Your task to perform on an android device: Search for vegetarian restaurants on Maps Image 0: 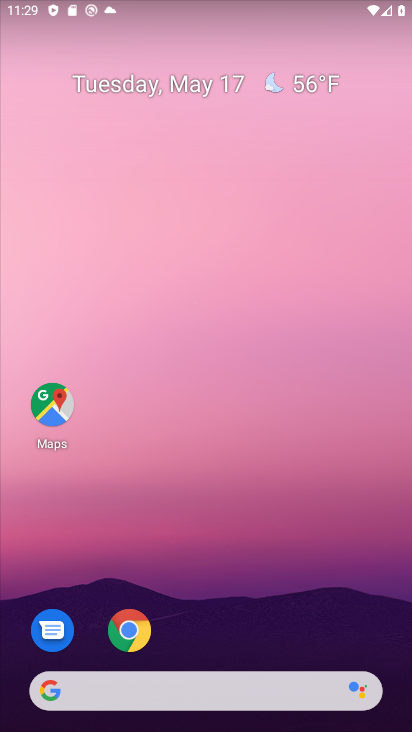
Step 0: drag from (392, 590) to (338, 192)
Your task to perform on an android device: Search for vegetarian restaurants on Maps Image 1: 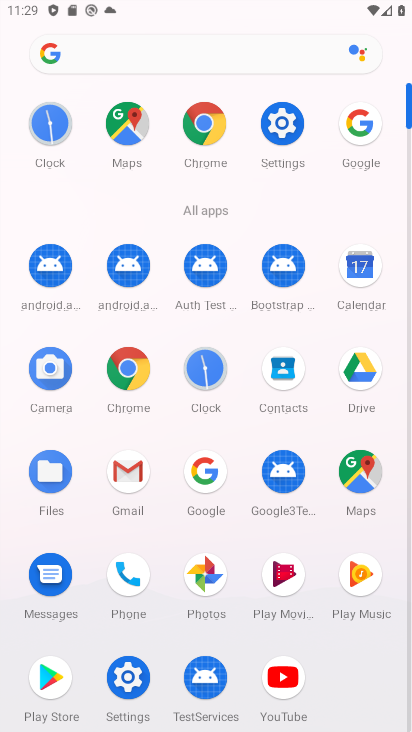
Step 1: click (357, 475)
Your task to perform on an android device: Search for vegetarian restaurants on Maps Image 2: 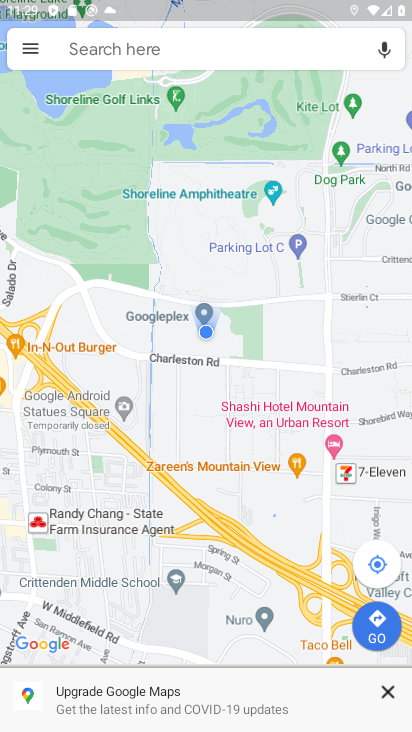
Step 2: click (194, 49)
Your task to perform on an android device: Search for vegetarian restaurants on Maps Image 3: 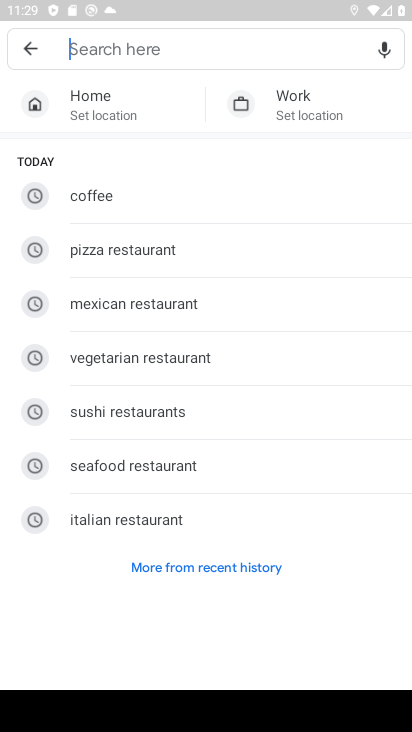
Step 3: click (248, 358)
Your task to perform on an android device: Search for vegetarian restaurants on Maps Image 4: 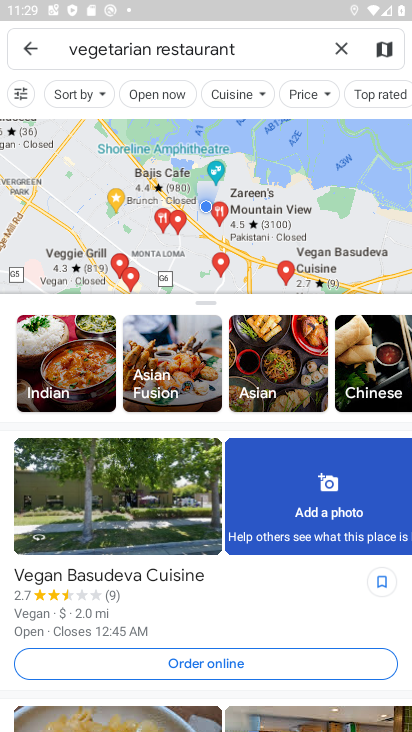
Step 4: task complete